Your task to perform on an android device: turn off wifi Image 0: 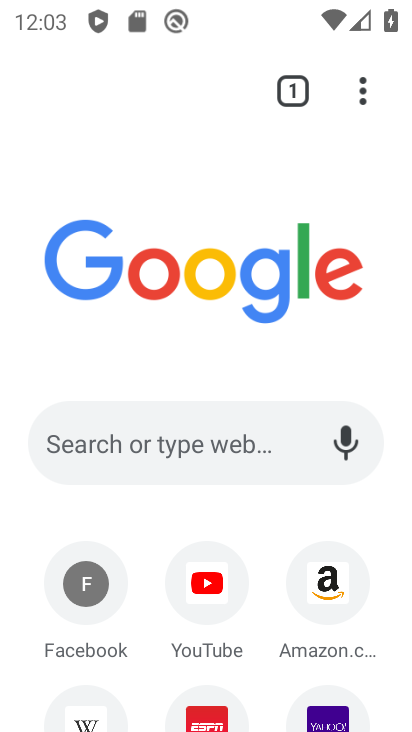
Step 0: press home button
Your task to perform on an android device: turn off wifi Image 1: 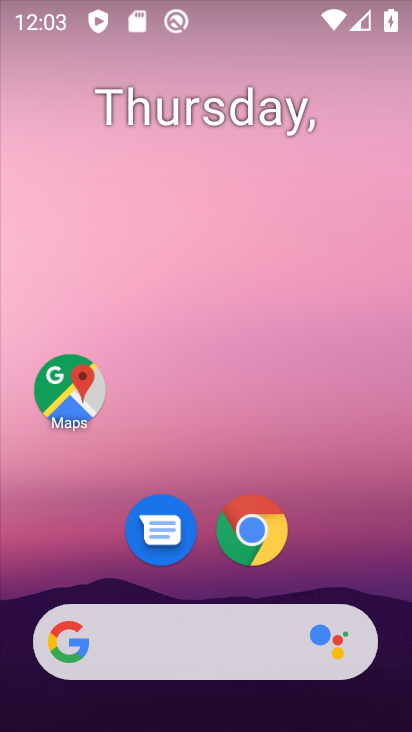
Step 1: drag from (206, 643) to (210, 93)
Your task to perform on an android device: turn off wifi Image 2: 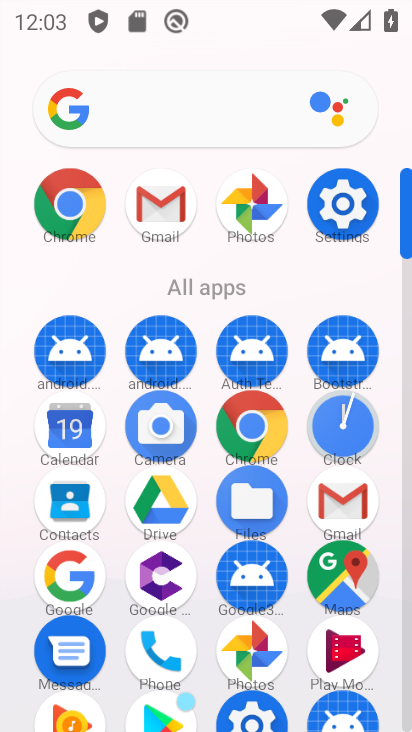
Step 2: click (329, 202)
Your task to perform on an android device: turn off wifi Image 3: 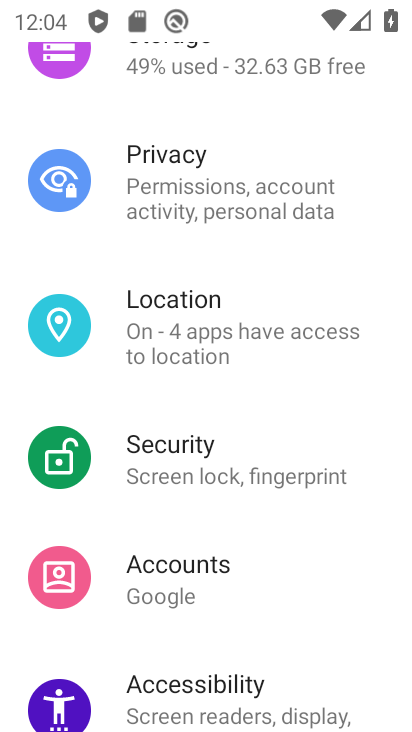
Step 3: drag from (173, 81) to (167, 603)
Your task to perform on an android device: turn off wifi Image 4: 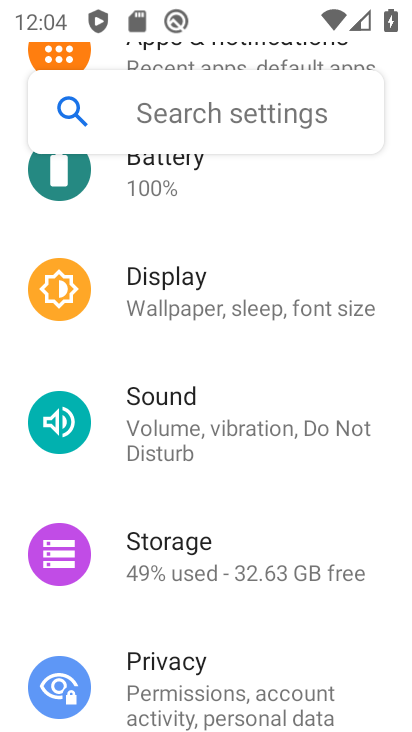
Step 4: drag from (170, 222) to (149, 593)
Your task to perform on an android device: turn off wifi Image 5: 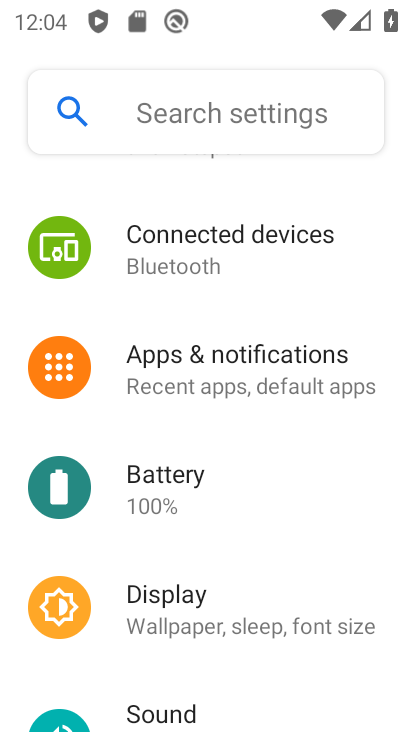
Step 5: drag from (165, 239) to (129, 603)
Your task to perform on an android device: turn off wifi Image 6: 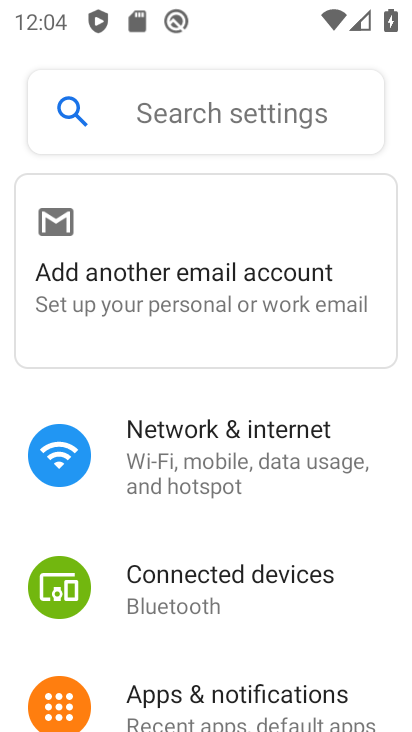
Step 6: click (189, 461)
Your task to perform on an android device: turn off wifi Image 7: 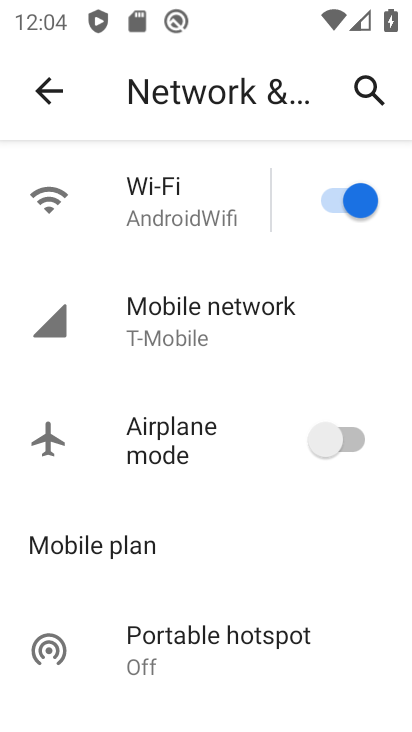
Step 7: click (344, 201)
Your task to perform on an android device: turn off wifi Image 8: 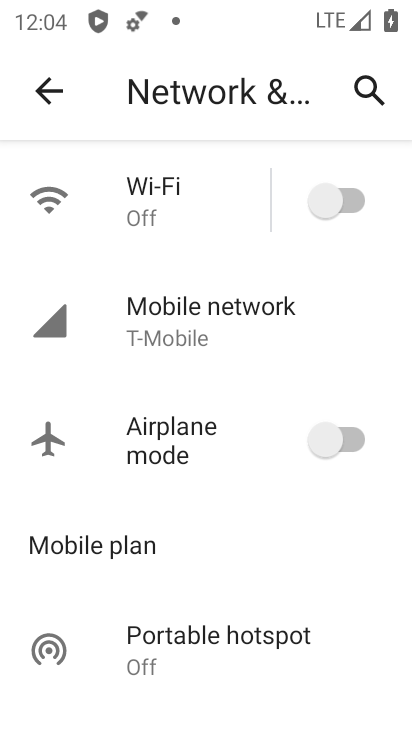
Step 8: task complete